Your task to perform on an android device: open app "McDonald's" (install if not already installed) Image 0: 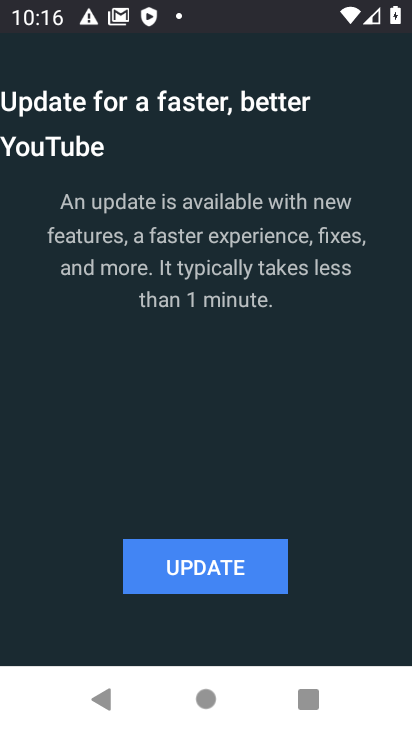
Step 0: press home button
Your task to perform on an android device: open app "McDonald's" (install if not already installed) Image 1: 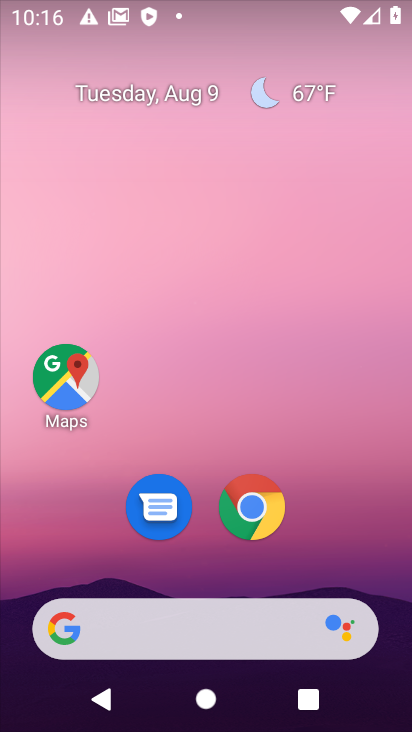
Step 1: drag from (208, 569) to (275, 36)
Your task to perform on an android device: open app "McDonald's" (install if not already installed) Image 2: 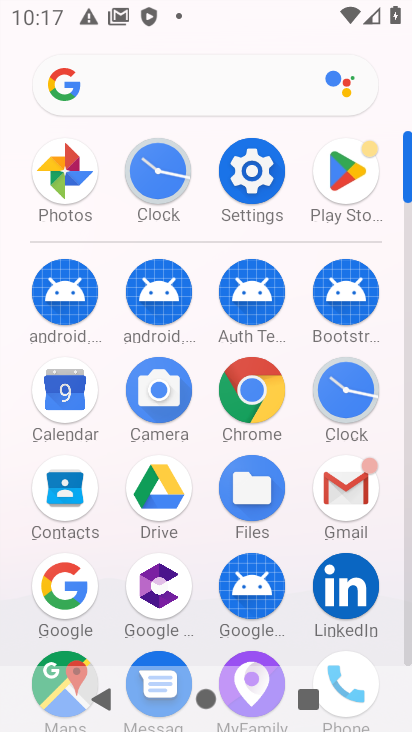
Step 2: click (353, 183)
Your task to perform on an android device: open app "McDonald's" (install if not already installed) Image 3: 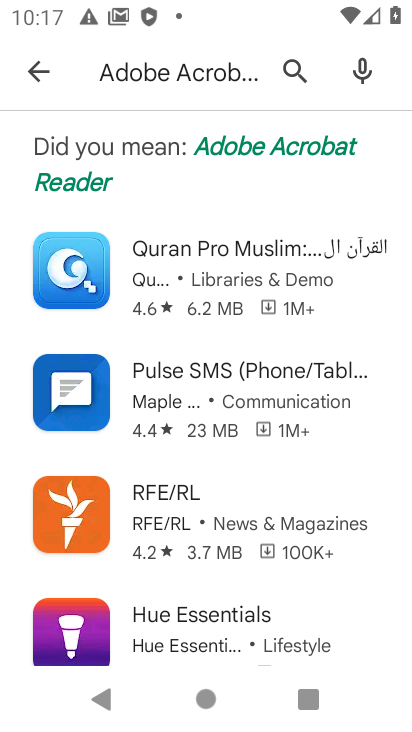
Step 3: click (39, 83)
Your task to perform on an android device: open app "McDonald's" (install if not already installed) Image 4: 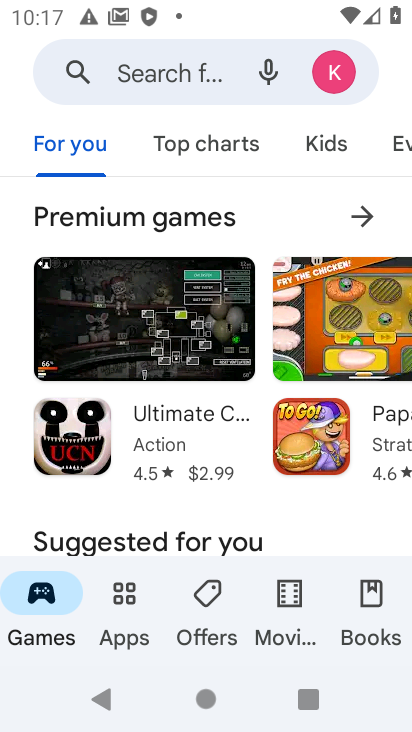
Step 4: click (137, 70)
Your task to perform on an android device: open app "McDonald's" (install if not already installed) Image 5: 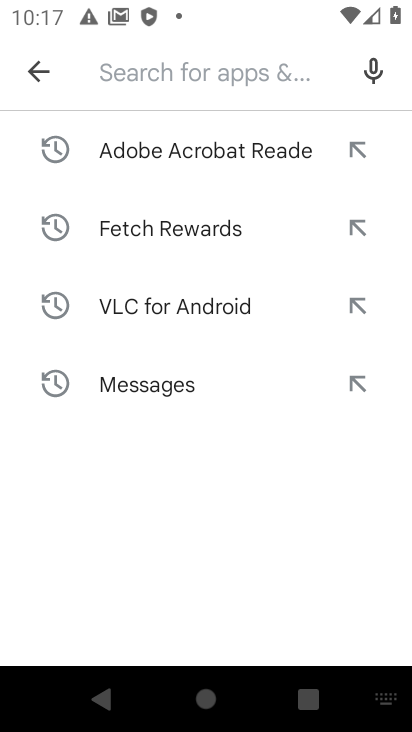
Step 5: type "McDonald's"
Your task to perform on an android device: open app "McDonald's" (install if not already installed) Image 6: 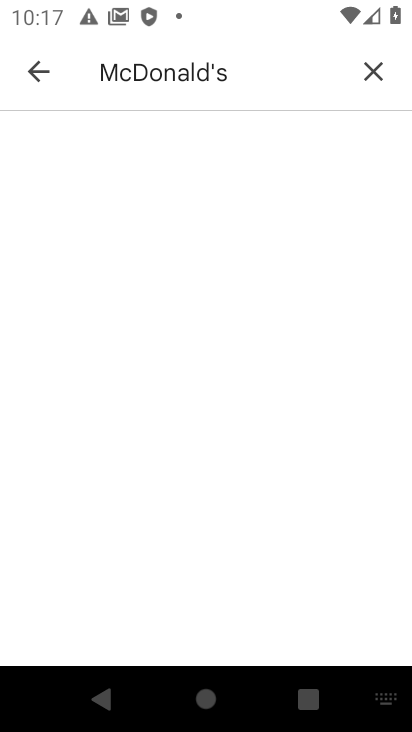
Step 6: press enter
Your task to perform on an android device: open app "McDonald's" (install if not already installed) Image 7: 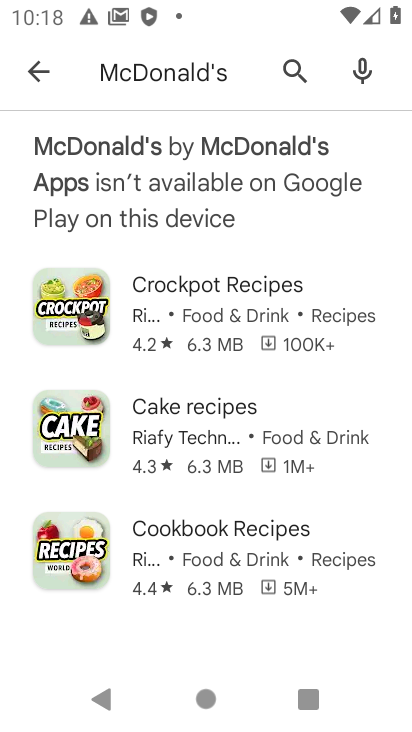
Step 7: task complete